Your task to perform on an android device: Check the news Image 0: 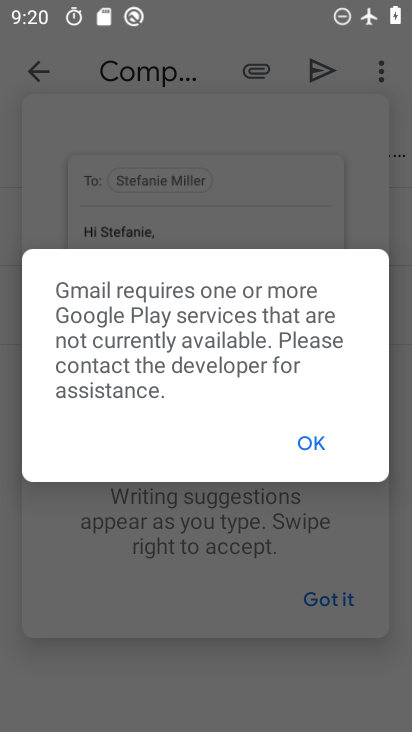
Step 0: press home button
Your task to perform on an android device: Check the news Image 1: 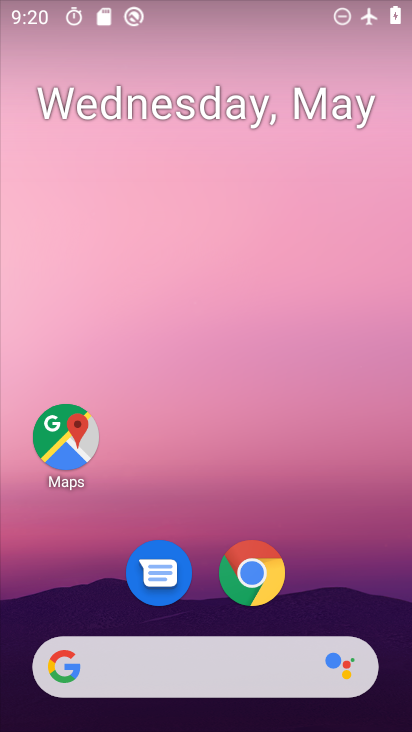
Step 1: task complete